Your task to perform on an android device: Open network settings Image 0: 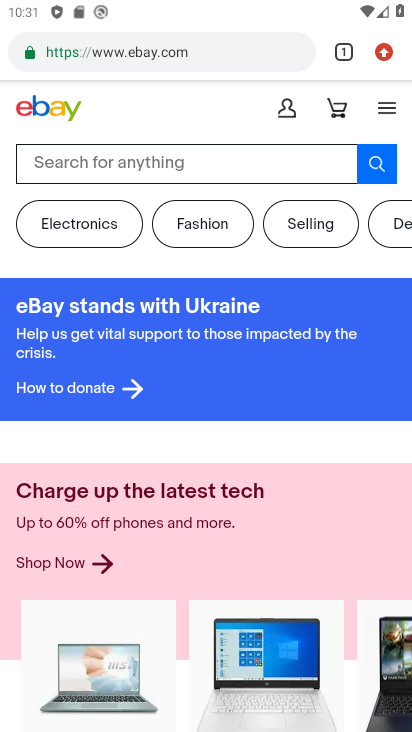
Step 0: press home button
Your task to perform on an android device: Open network settings Image 1: 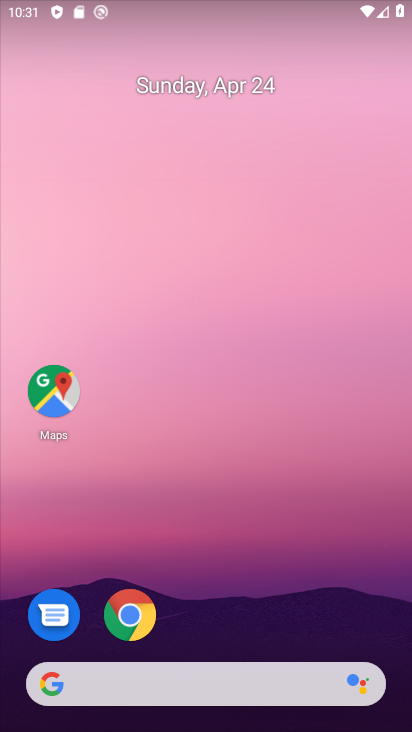
Step 1: drag from (219, 624) to (312, 140)
Your task to perform on an android device: Open network settings Image 2: 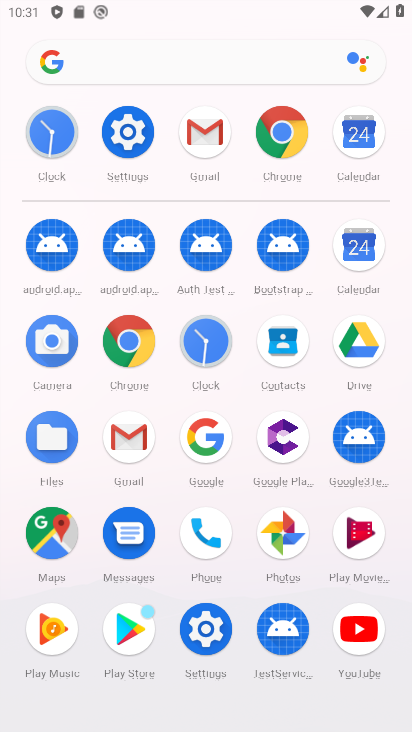
Step 2: click (133, 122)
Your task to perform on an android device: Open network settings Image 3: 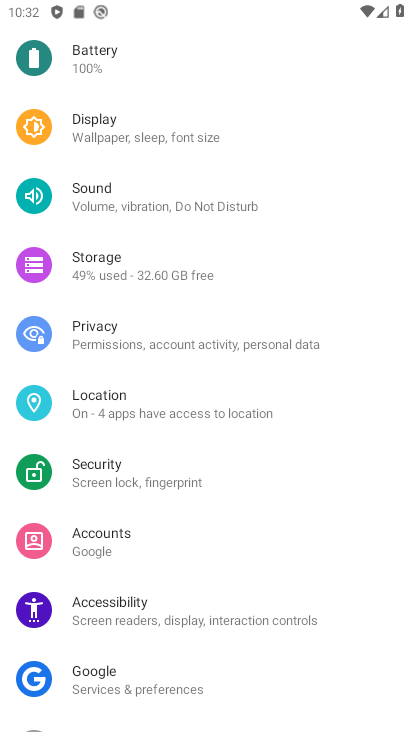
Step 3: drag from (159, 96) to (169, 709)
Your task to perform on an android device: Open network settings Image 4: 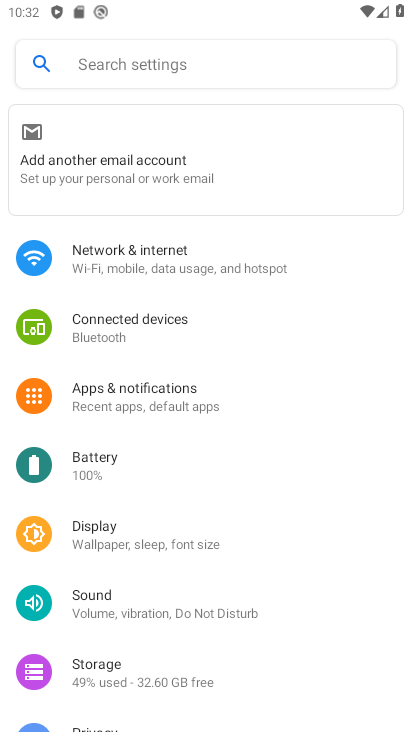
Step 4: click (179, 256)
Your task to perform on an android device: Open network settings Image 5: 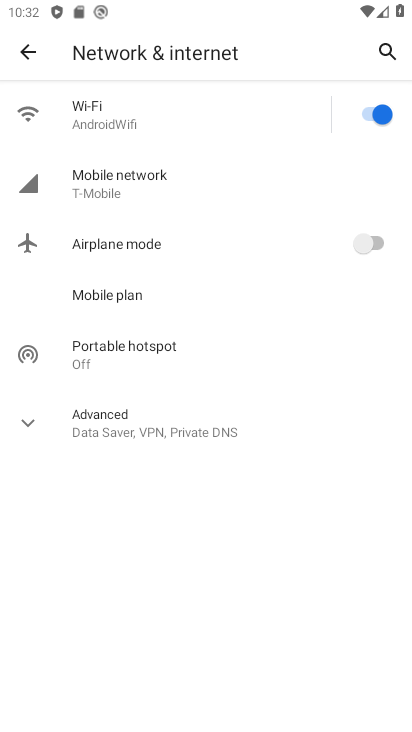
Step 5: click (27, 420)
Your task to perform on an android device: Open network settings Image 6: 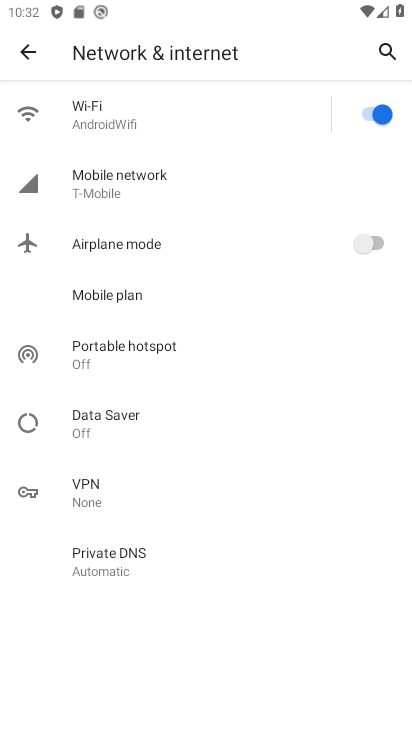
Step 6: task complete